Your task to perform on an android device: read, delete, or share a saved page in the chrome app Image 0: 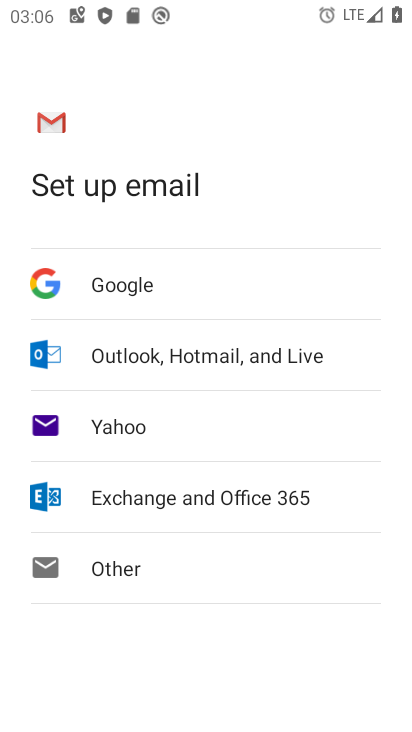
Step 0: press home button
Your task to perform on an android device: read, delete, or share a saved page in the chrome app Image 1: 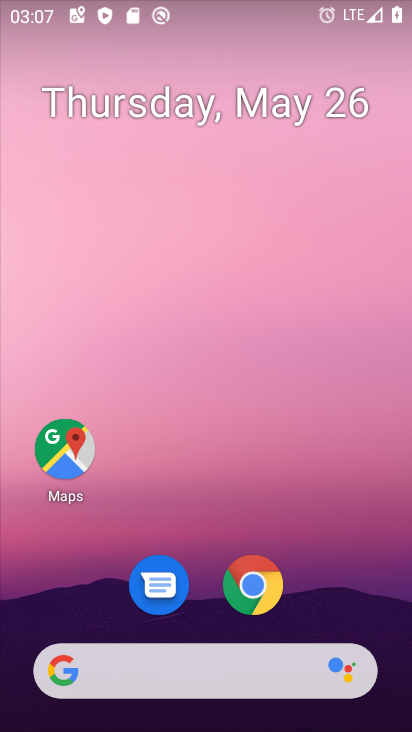
Step 1: click (261, 576)
Your task to perform on an android device: read, delete, or share a saved page in the chrome app Image 2: 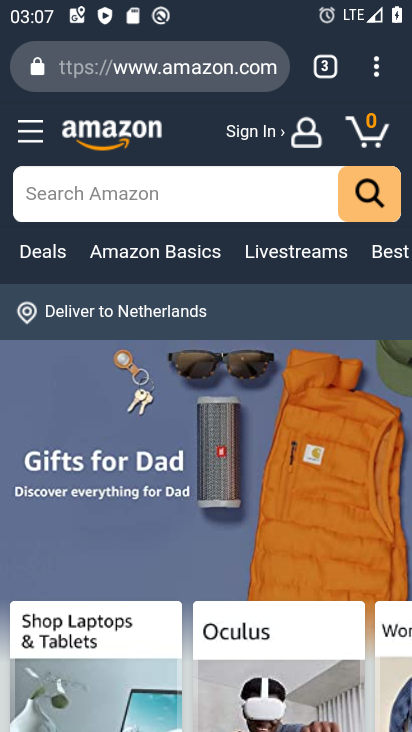
Step 2: click (374, 64)
Your task to perform on an android device: read, delete, or share a saved page in the chrome app Image 3: 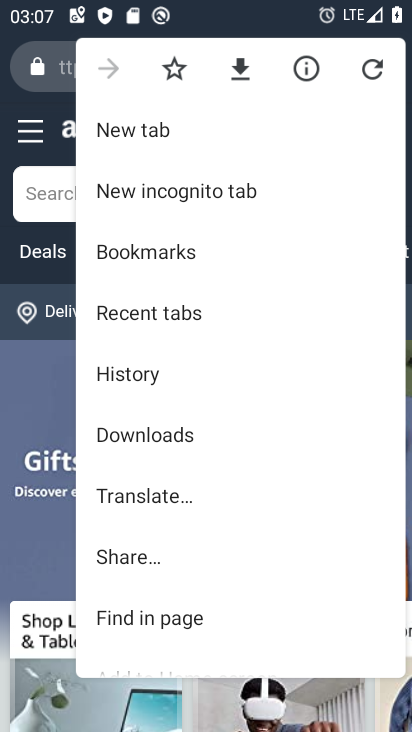
Step 3: click (191, 426)
Your task to perform on an android device: read, delete, or share a saved page in the chrome app Image 4: 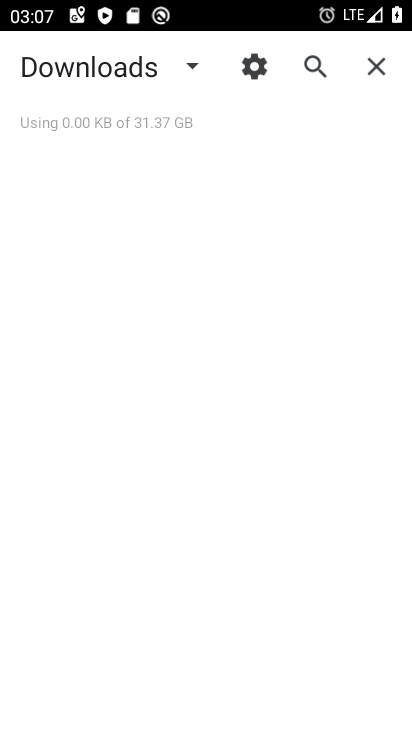
Step 4: task complete